Your task to perform on an android device: turn off translation in the chrome app Image 0: 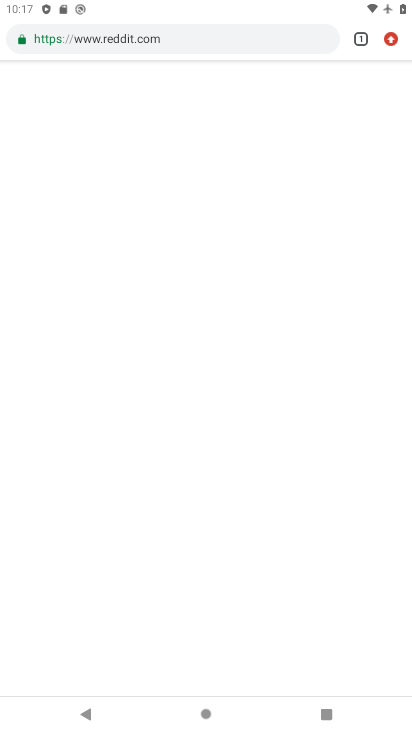
Step 0: press home button
Your task to perform on an android device: turn off translation in the chrome app Image 1: 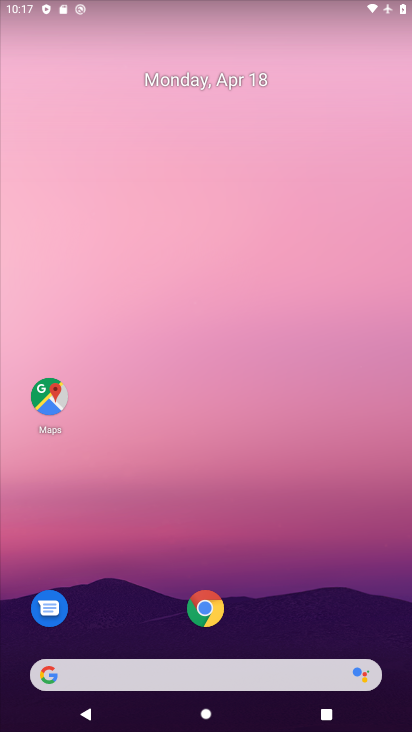
Step 1: click (211, 608)
Your task to perform on an android device: turn off translation in the chrome app Image 2: 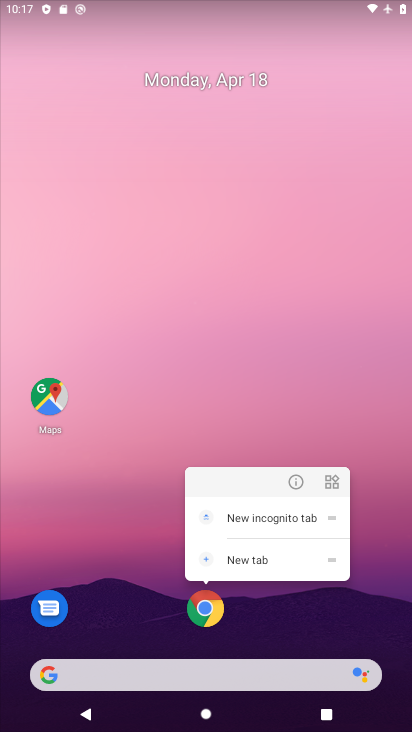
Step 2: click (204, 607)
Your task to perform on an android device: turn off translation in the chrome app Image 3: 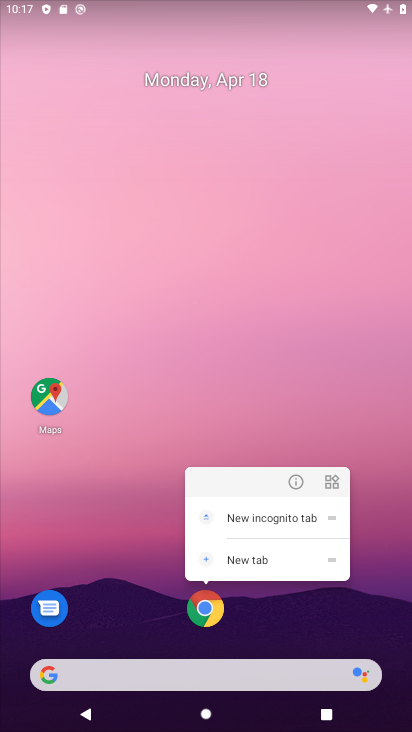
Step 3: click (211, 621)
Your task to perform on an android device: turn off translation in the chrome app Image 4: 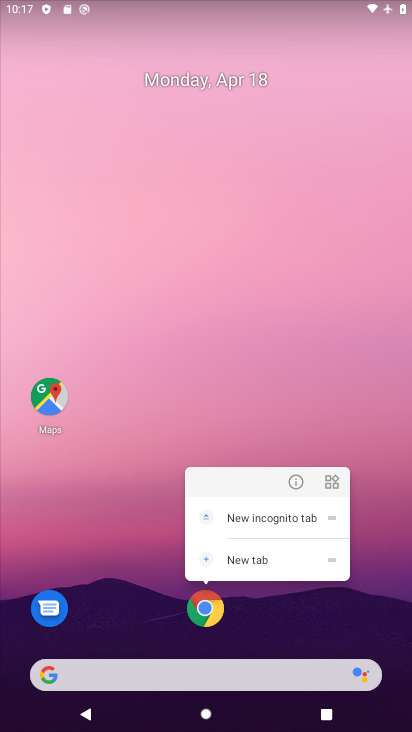
Step 4: click (211, 621)
Your task to perform on an android device: turn off translation in the chrome app Image 5: 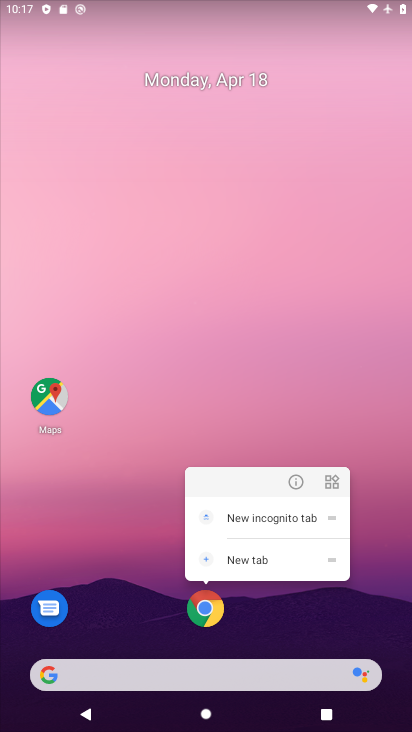
Step 5: click (211, 621)
Your task to perform on an android device: turn off translation in the chrome app Image 6: 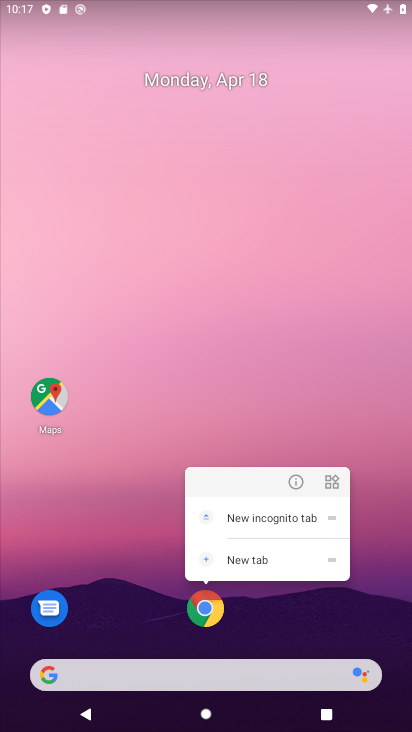
Step 6: click (211, 621)
Your task to perform on an android device: turn off translation in the chrome app Image 7: 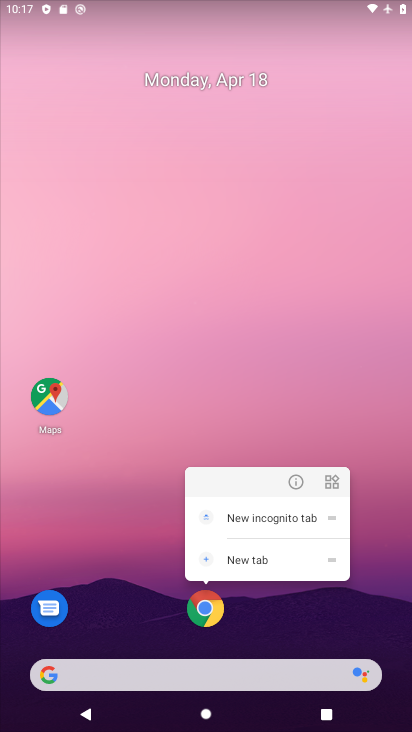
Step 7: click (211, 621)
Your task to perform on an android device: turn off translation in the chrome app Image 8: 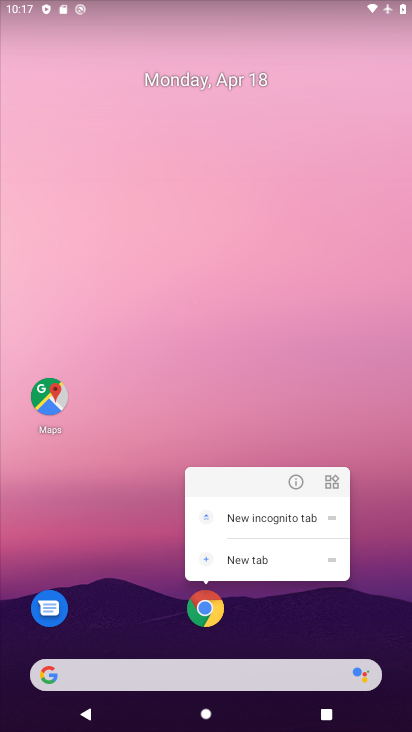
Step 8: click (211, 621)
Your task to perform on an android device: turn off translation in the chrome app Image 9: 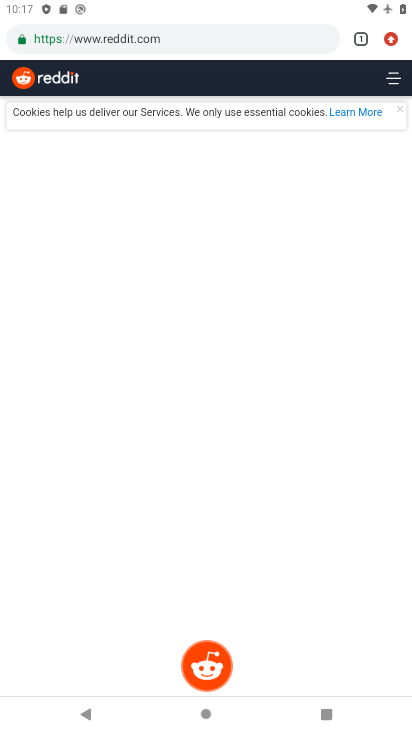
Step 9: click (396, 38)
Your task to perform on an android device: turn off translation in the chrome app Image 10: 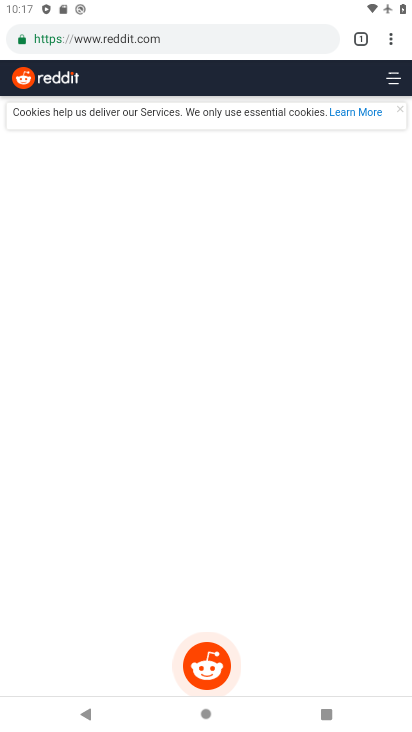
Step 10: click (389, 35)
Your task to perform on an android device: turn off translation in the chrome app Image 11: 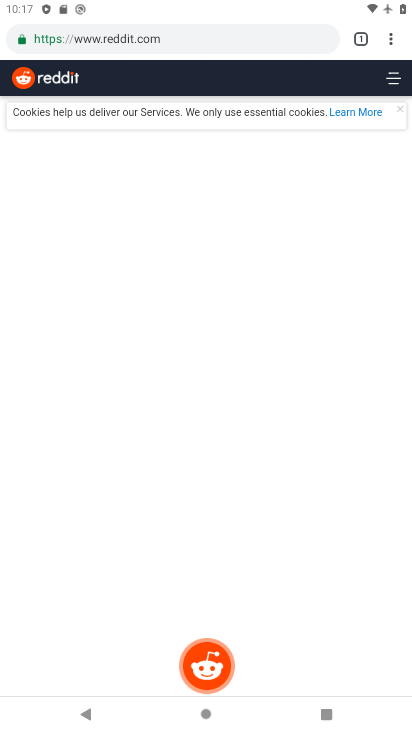
Step 11: drag from (391, 35) to (289, 521)
Your task to perform on an android device: turn off translation in the chrome app Image 12: 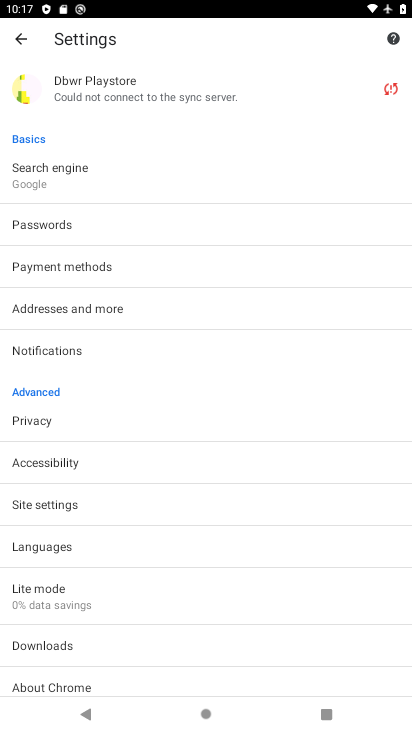
Step 12: click (72, 547)
Your task to perform on an android device: turn off translation in the chrome app Image 13: 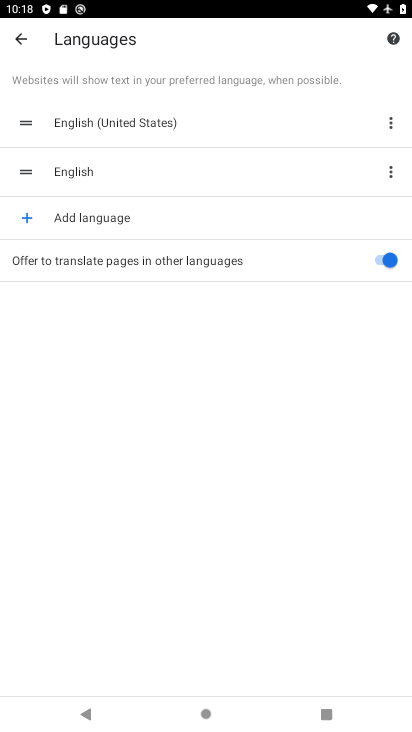
Step 13: click (390, 264)
Your task to perform on an android device: turn off translation in the chrome app Image 14: 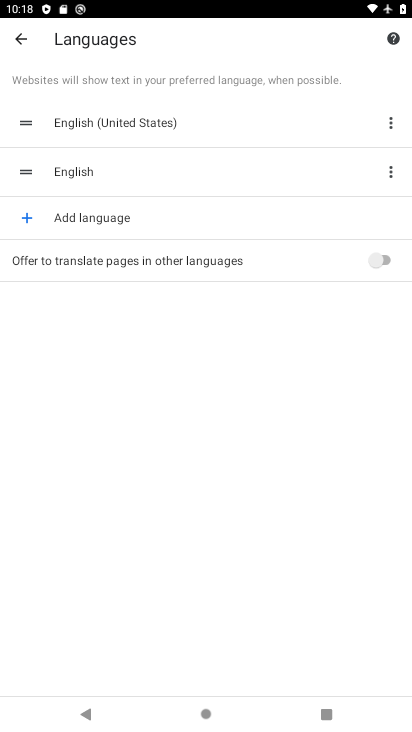
Step 14: task complete